Your task to perform on an android device: open a new tab in the chrome app Image 0: 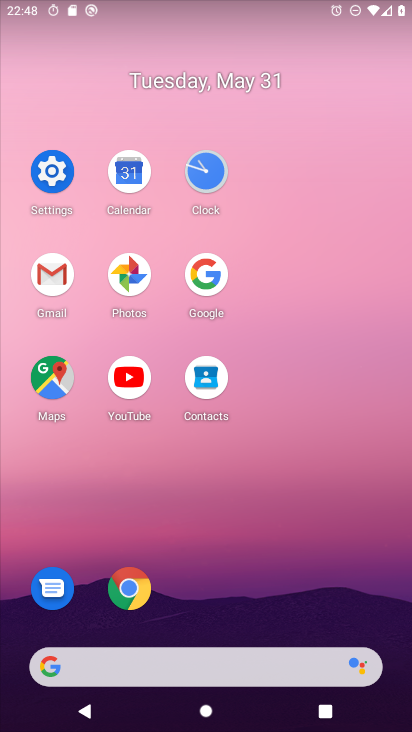
Step 0: click (141, 597)
Your task to perform on an android device: open a new tab in the chrome app Image 1: 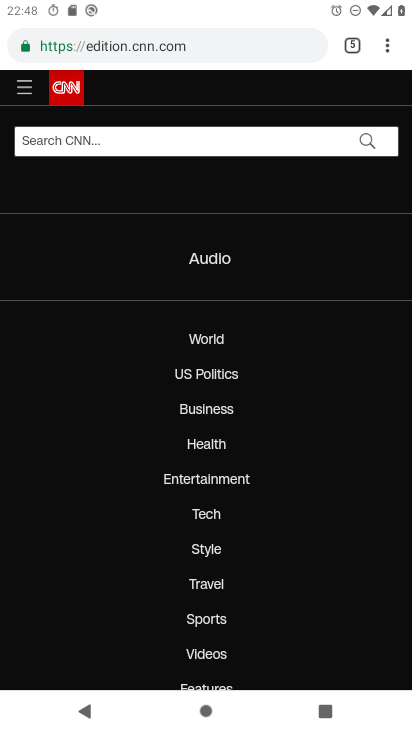
Step 1: click (351, 34)
Your task to perform on an android device: open a new tab in the chrome app Image 2: 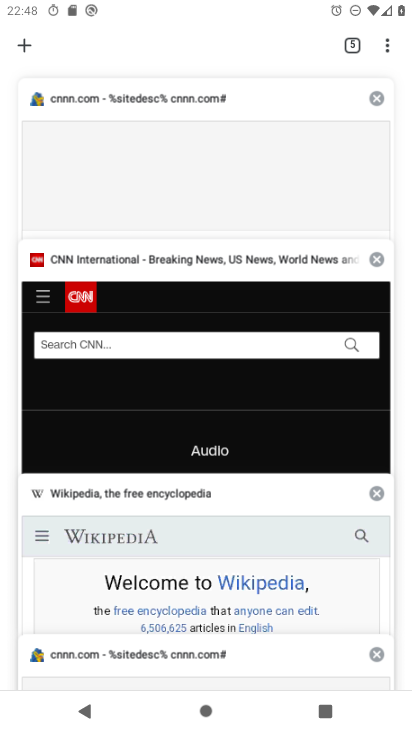
Step 2: click (27, 60)
Your task to perform on an android device: open a new tab in the chrome app Image 3: 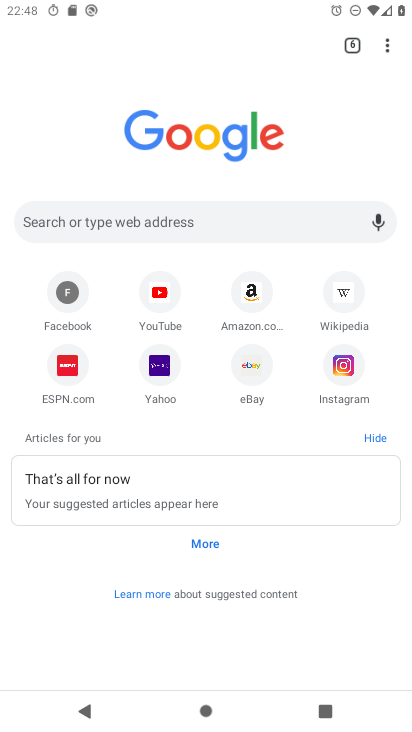
Step 3: task complete